Your task to perform on an android device: snooze an email in the gmail app Image 0: 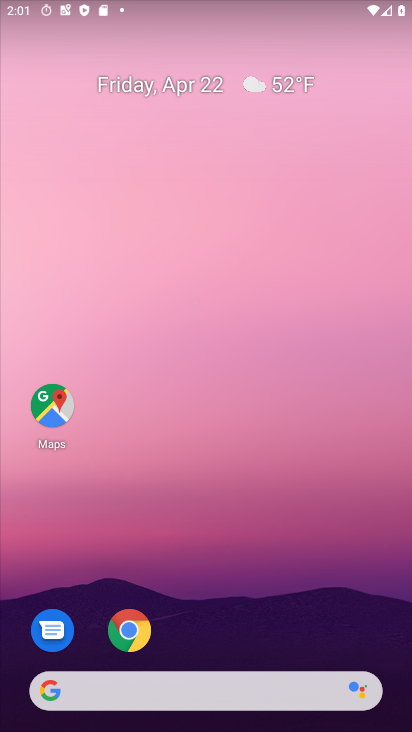
Step 0: click (302, 248)
Your task to perform on an android device: snooze an email in the gmail app Image 1: 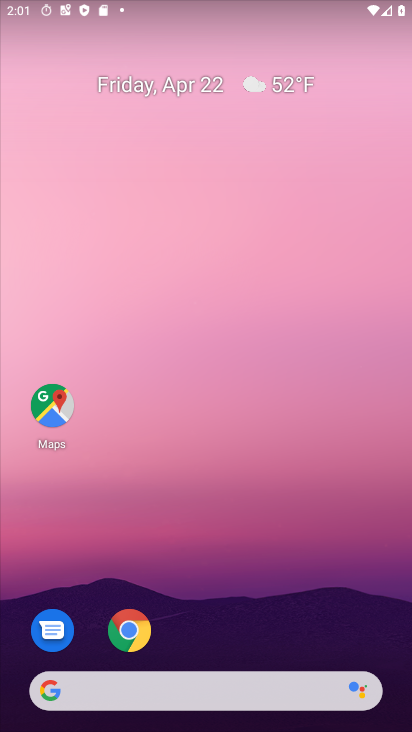
Step 1: click (312, 146)
Your task to perform on an android device: snooze an email in the gmail app Image 2: 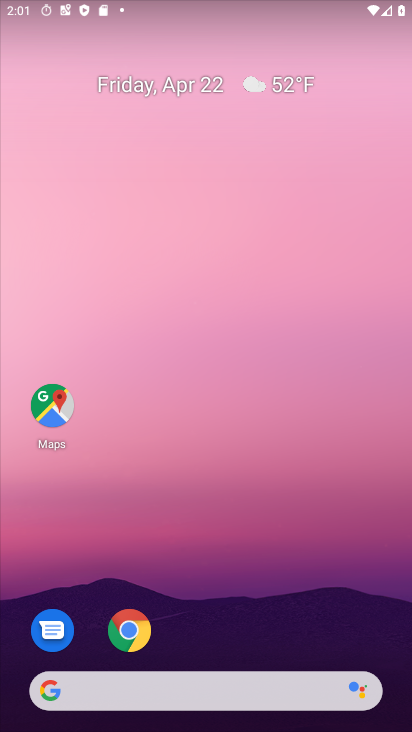
Step 2: click (353, 204)
Your task to perform on an android device: snooze an email in the gmail app Image 3: 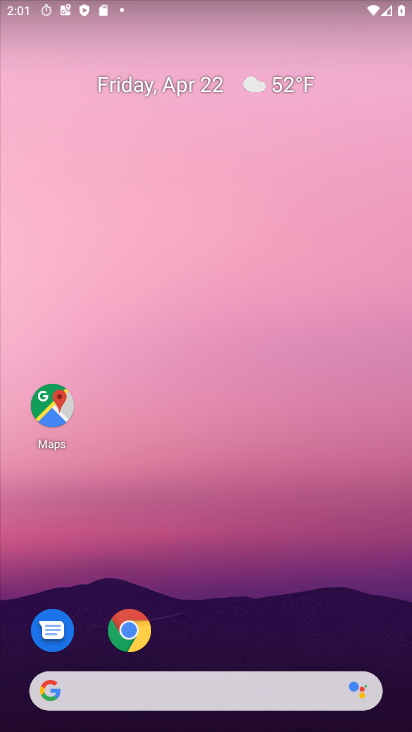
Step 3: drag from (349, 381) to (306, 169)
Your task to perform on an android device: snooze an email in the gmail app Image 4: 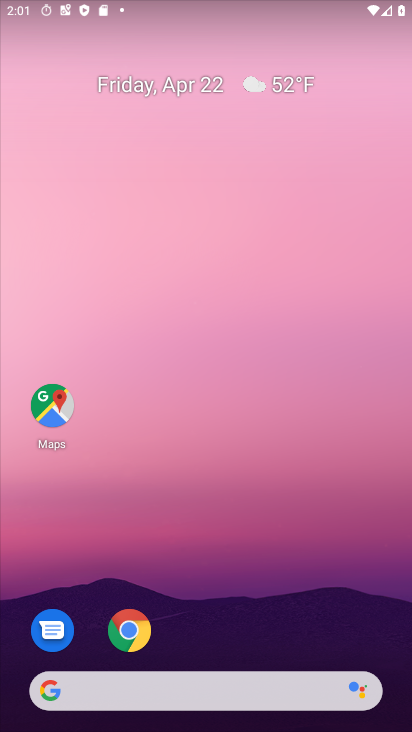
Step 4: drag from (381, 590) to (287, 25)
Your task to perform on an android device: snooze an email in the gmail app Image 5: 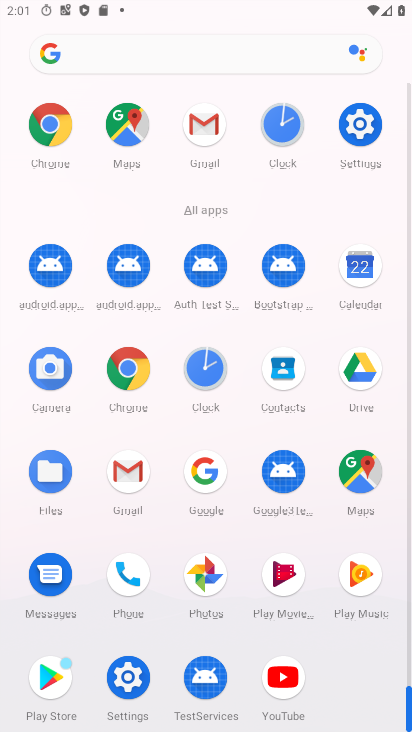
Step 5: click (122, 470)
Your task to perform on an android device: snooze an email in the gmail app Image 6: 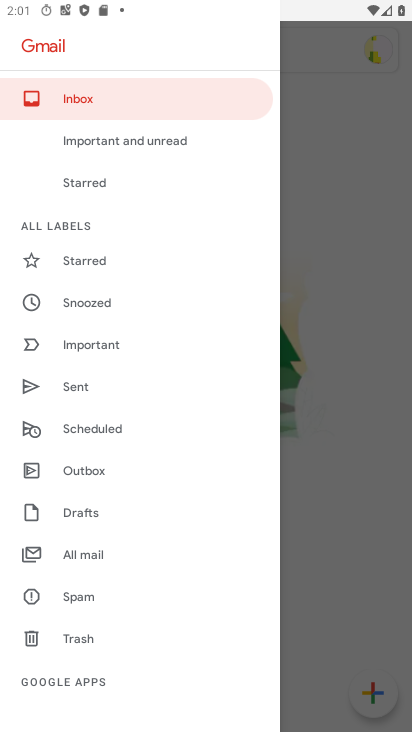
Step 6: click (85, 96)
Your task to perform on an android device: snooze an email in the gmail app Image 7: 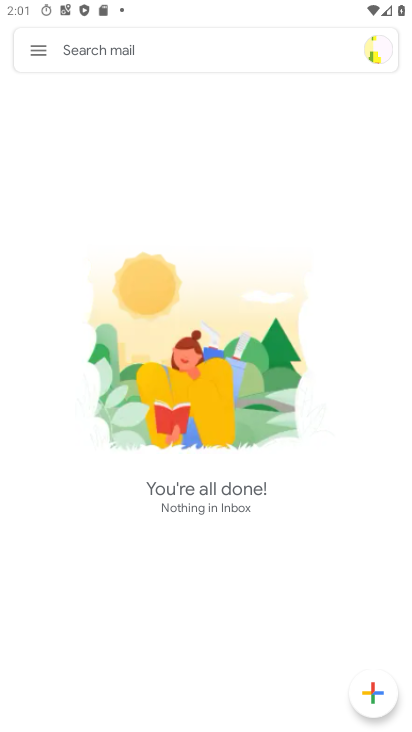
Step 7: task complete